Your task to perform on an android device: Go to privacy settings Image 0: 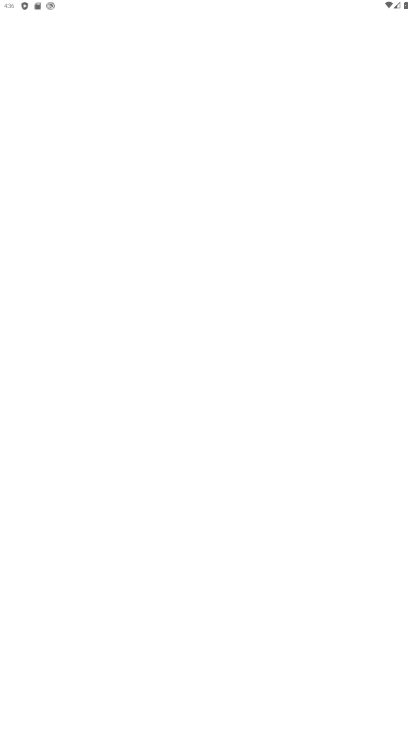
Step 0: press home button
Your task to perform on an android device: Go to privacy settings Image 1: 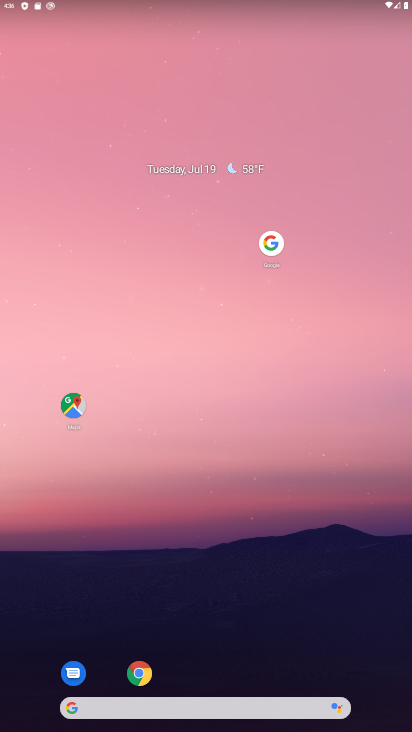
Step 1: drag from (275, 96) to (371, 156)
Your task to perform on an android device: Go to privacy settings Image 2: 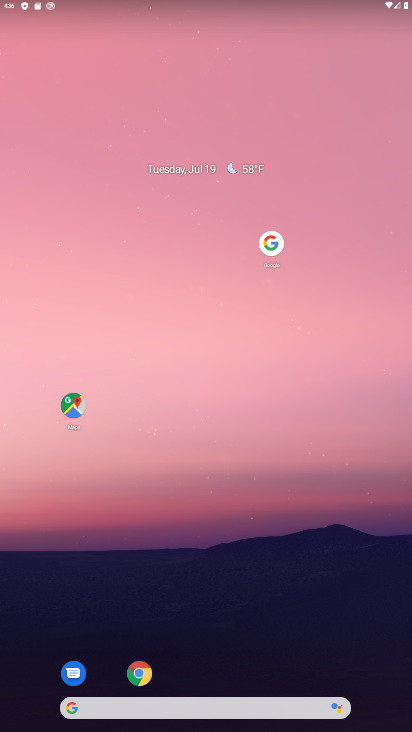
Step 2: drag from (222, 525) to (222, 14)
Your task to perform on an android device: Go to privacy settings Image 3: 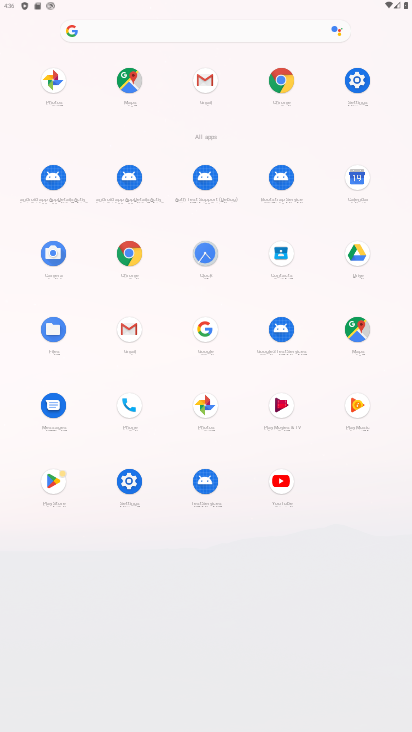
Step 3: click (358, 83)
Your task to perform on an android device: Go to privacy settings Image 4: 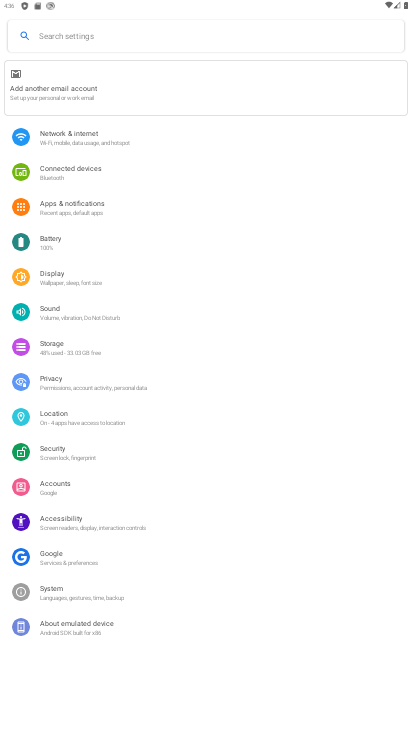
Step 4: click (78, 384)
Your task to perform on an android device: Go to privacy settings Image 5: 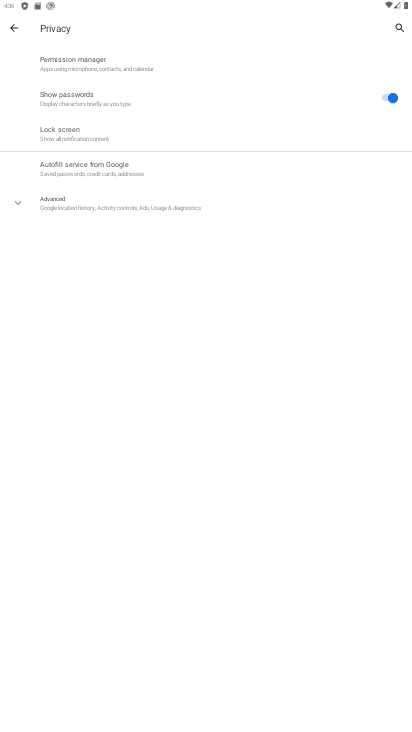
Step 5: task complete